Your task to perform on an android device: check storage Image 0: 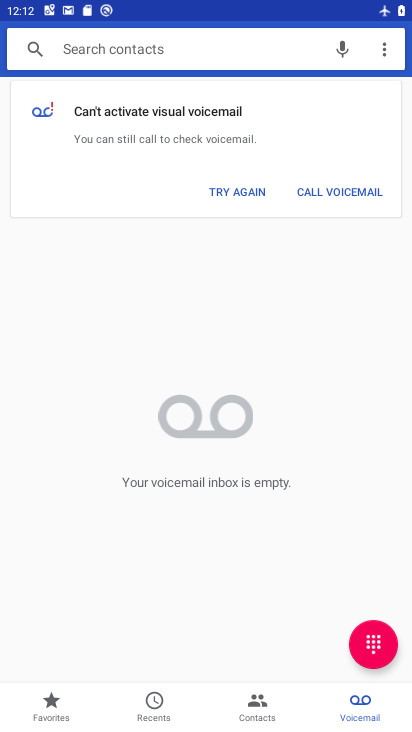
Step 0: press home button
Your task to perform on an android device: check storage Image 1: 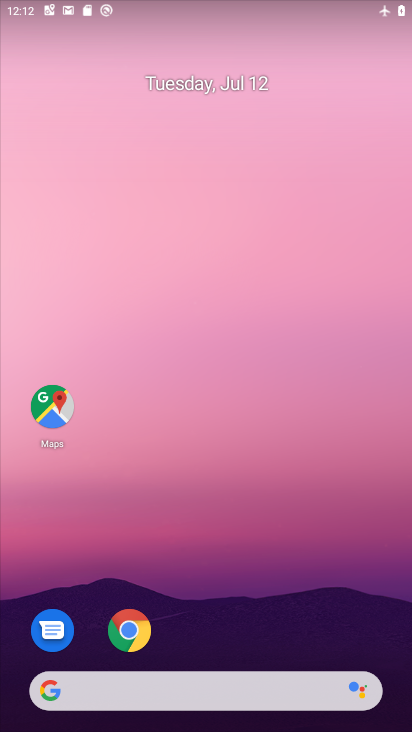
Step 1: drag from (198, 606) to (249, 241)
Your task to perform on an android device: check storage Image 2: 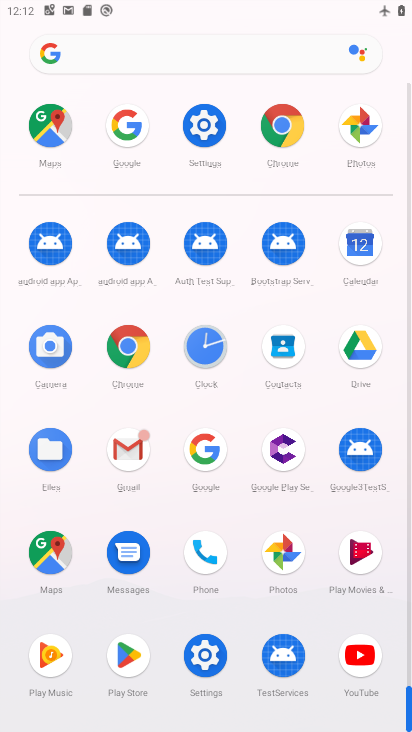
Step 2: click (206, 126)
Your task to perform on an android device: check storage Image 3: 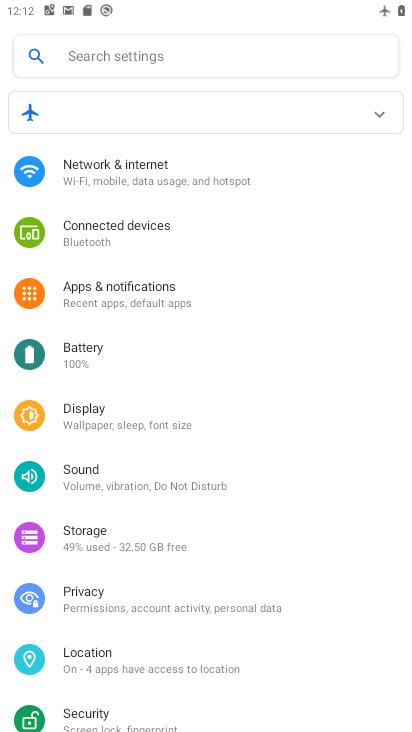
Step 3: click (141, 542)
Your task to perform on an android device: check storage Image 4: 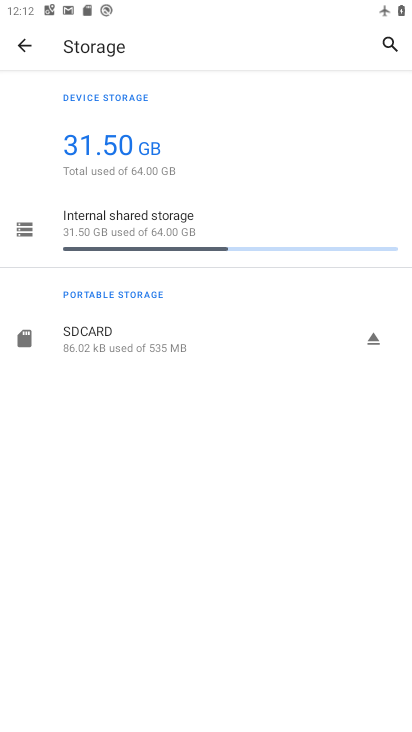
Step 4: click (182, 214)
Your task to perform on an android device: check storage Image 5: 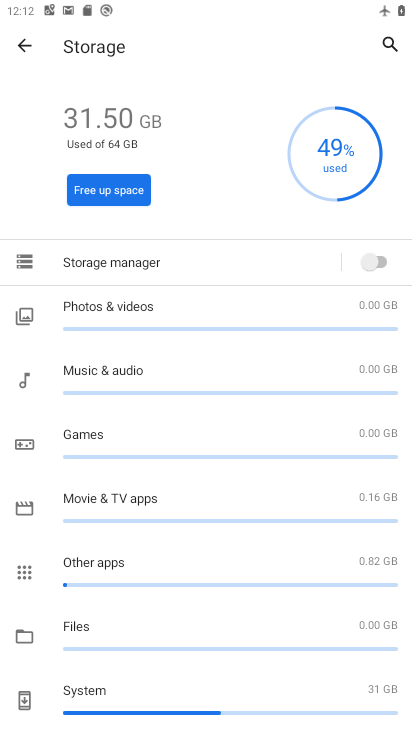
Step 5: task complete